Your task to perform on an android device: open the mobile data screen to see how much data has been used Image 0: 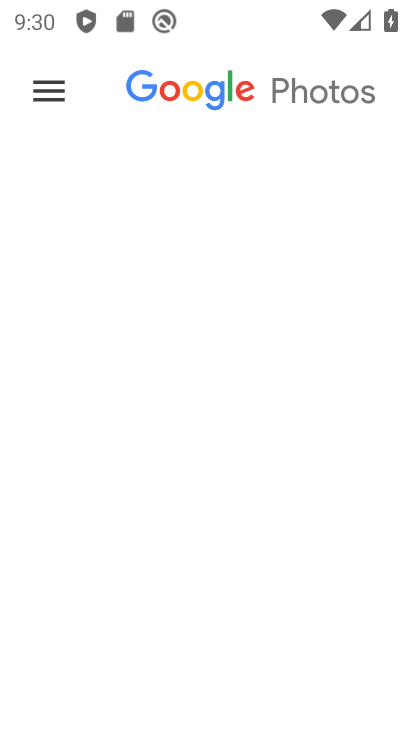
Step 0: drag from (272, 691) to (167, 103)
Your task to perform on an android device: open the mobile data screen to see how much data has been used Image 1: 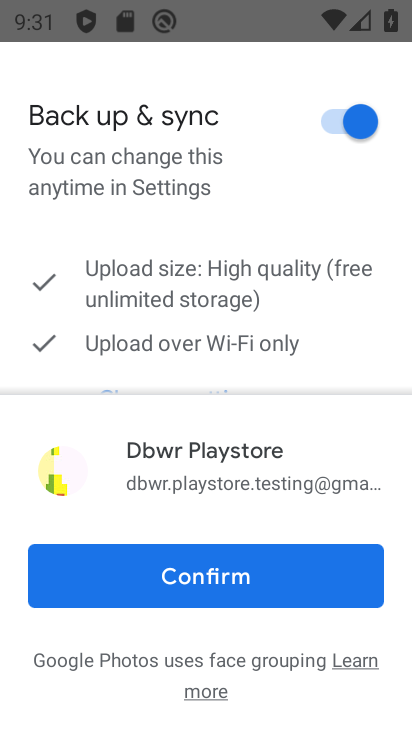
Step 1: press back button
Your task to perform on an android device: open the mobile data screen to see how much data has been used Image 2: 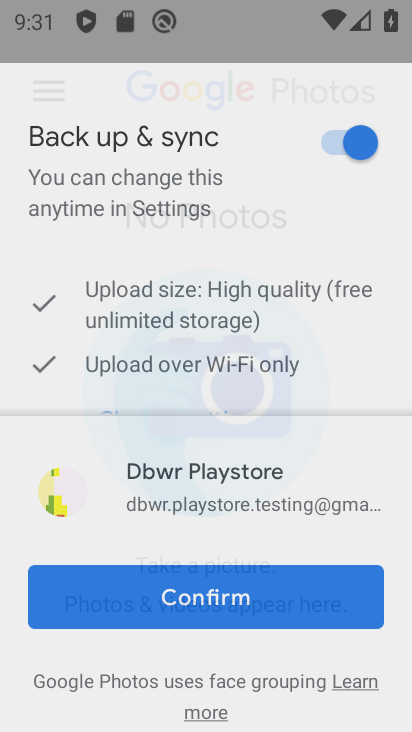
Step 2: press back button
Your task to perform on an android device: open the mobile data screen to see how much data has been used Image 3: 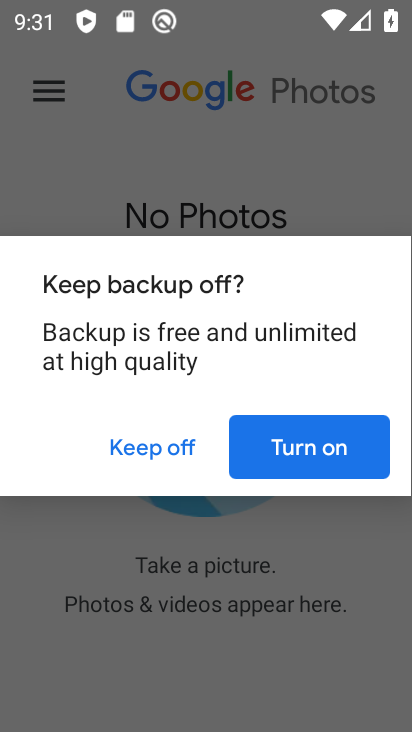
Step 3: press back button
Your task to perform on an android device: open the mobile data screen to see how much data has been used Image 4: 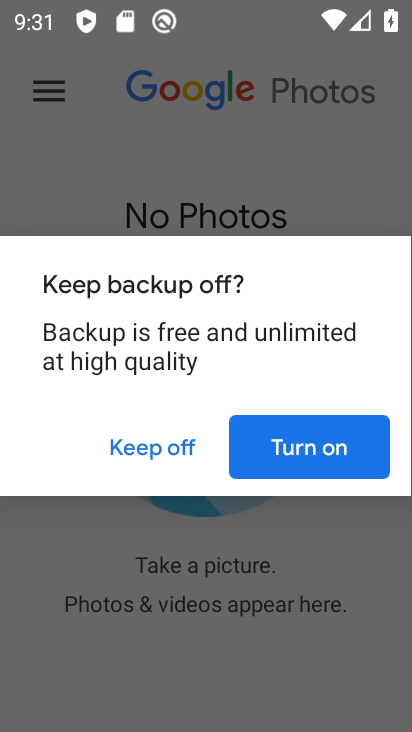
Step 4: click (153, 429)
Your task to perform on an android device: open the mobile data screen to see how much data has been used Image 5: 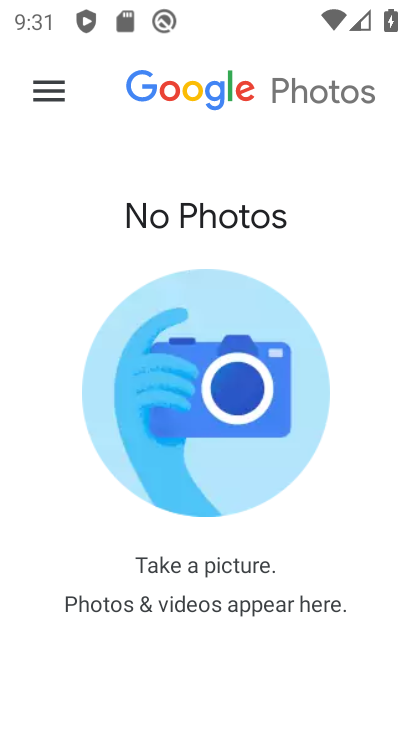
Step 5: drag from (69, 309) to (68, 3)
Your task to perform on an android device: open the mobile data screen to see how much data has been used Image 6: 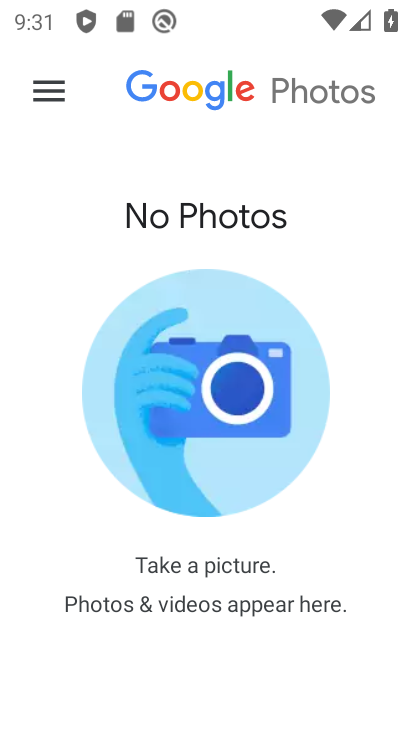
Step 6: drag from (110, 467) to (70, 89)
Your task to perform on an android device: open the mobile data screen to see how much data has been used Image 7: 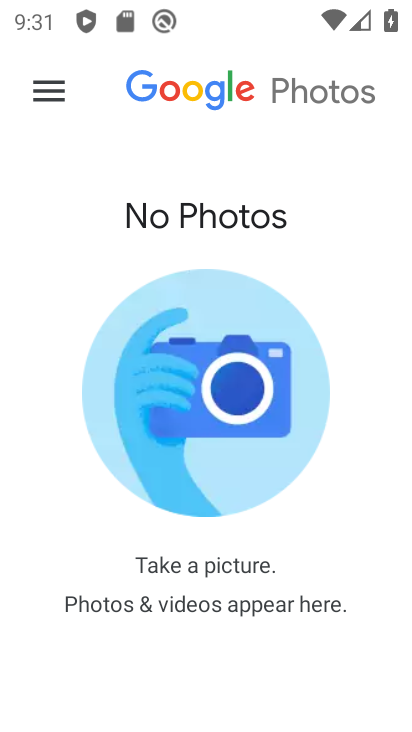
Step 7: drag from (106, 415) to (89, 85)
Your task to perform on an android device: open the mobile data screen to see how much data has been used Image 8: 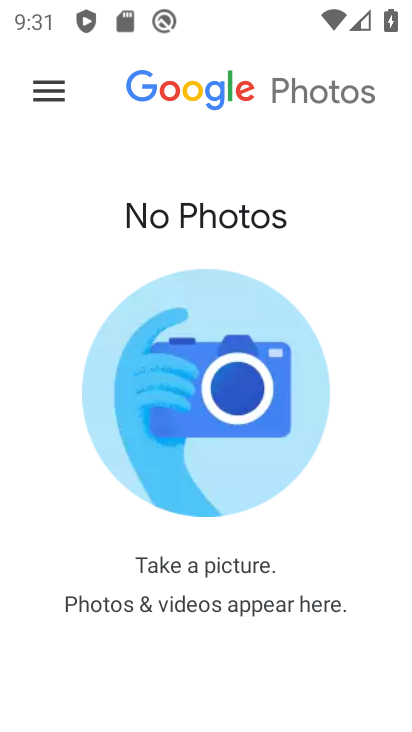
Step 8: drag from (111, 542) to (66, 57)
Your task to perform on an android device: open the mobile data screen to see how much data has been used Image 9: 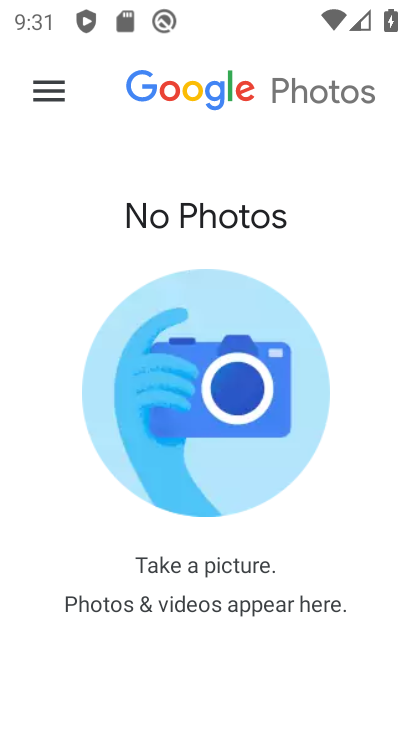
Step 9: drag from (103, 427) to (35, 35)
Your task to perform on an android device: open the mobile data screen to see how much data has been used Image 10: 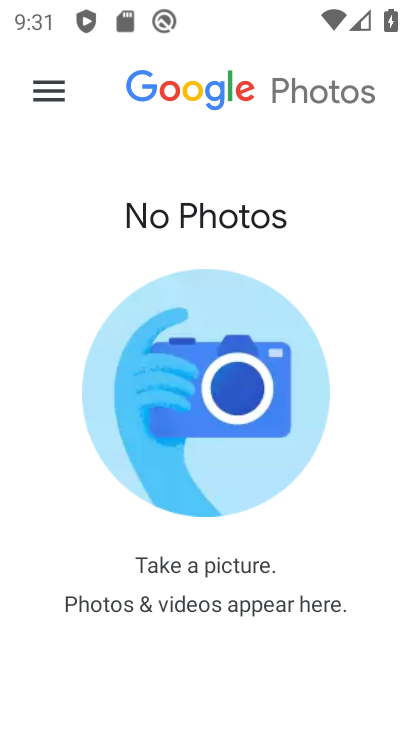
Step 10: drag from (112, 470) to (85, 69)
Your task to perform on an android device: open the mobile data screen to see how much data has been used Image 11: 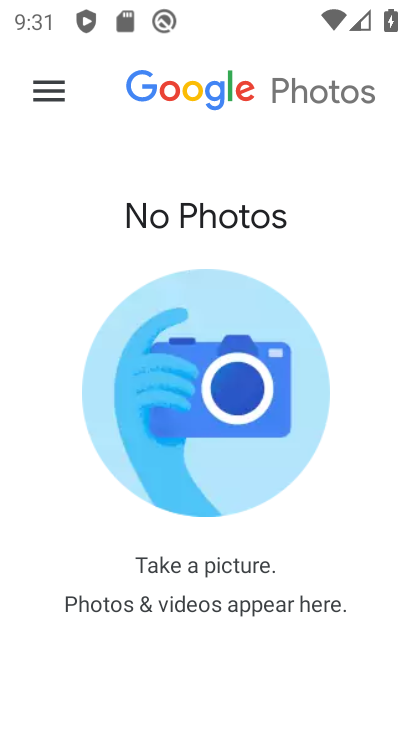
Step 11: drag from (34, 421) to (34, 0)
Your task to perform on an android device: open the mobile data screen to see how much data has been used Image 12: 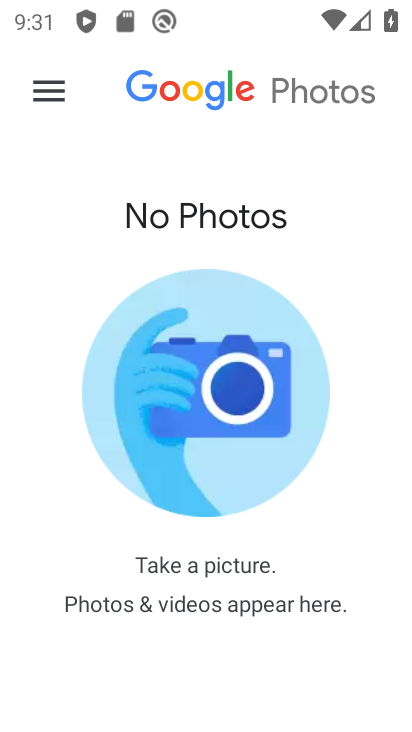
Step 12: press back button
Your task to perform on an android device: open the mobile data screen to see how much data has been used Image 13: 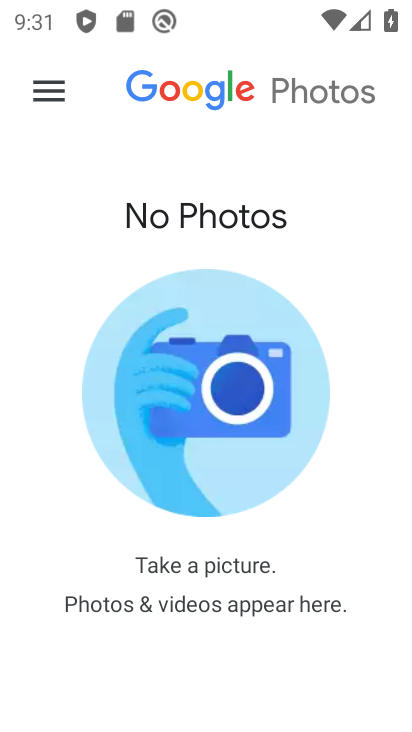
Step 13: press back button
Your task to perform on an android device: open the mobile data screen to see how much data has been used Image 14: 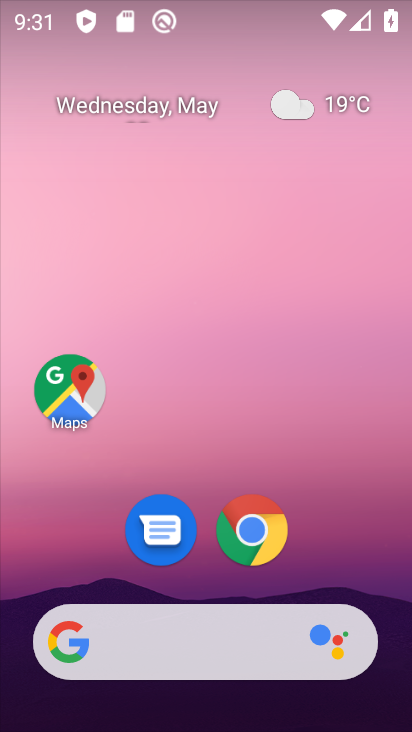
Step 14: drag from (274, 661) to (230, 5)
Your task to perform on an android device: open the mobile data screen to see how much data has been used Image 15: 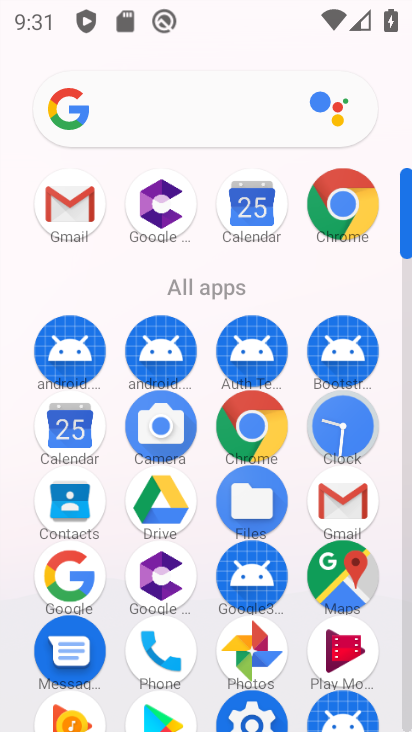
Step 15: drag from (204, 566) to (204, 241)
Your task to perform on an android device: open the mobile data screen to see how much data has been used Image 16: 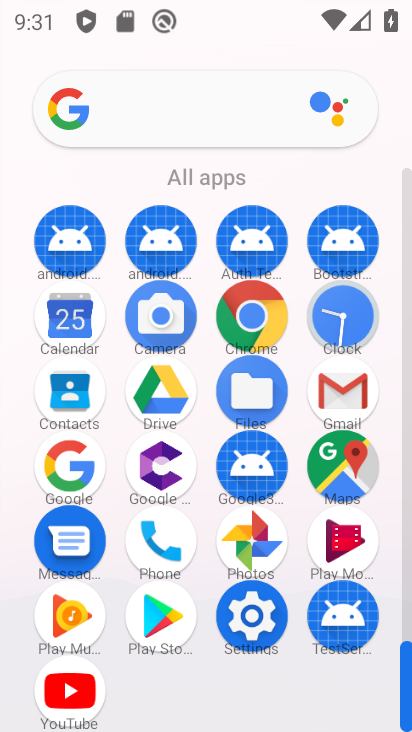
Step 16: drag from (186, 576) to (194, 145)
Your task to perform on an android device: open the mobile data screen to see how much data has been used Image 17: 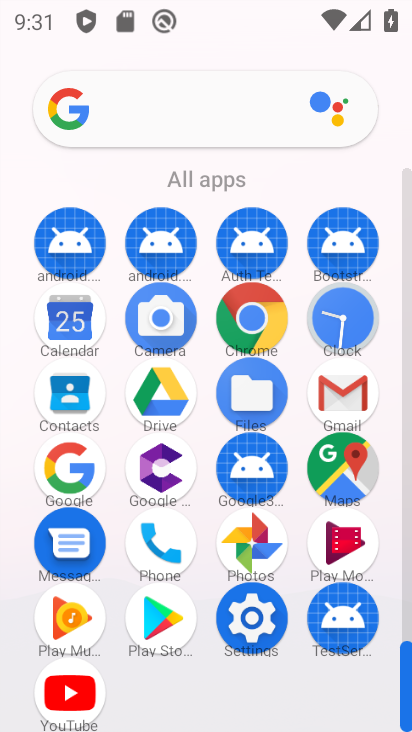
Step 17: click (261, 610)
Your task to perform on an android device: open the mobile data screen to see how much data has been used Image 18: 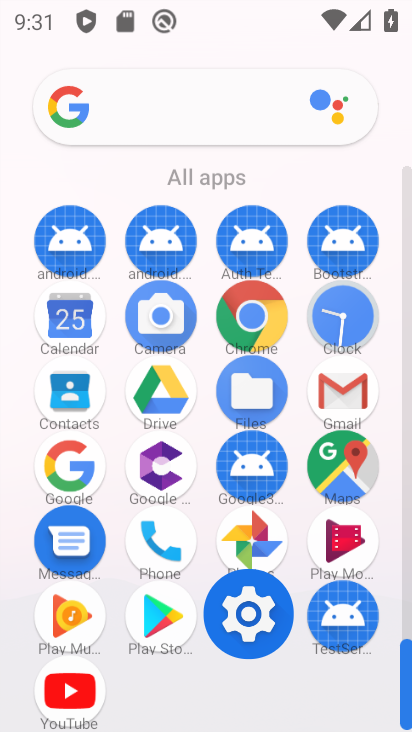
Step 18: click (260, 609)
Your task to perform on an android device: open the mobile data screen to see how much data has been used Image 19: 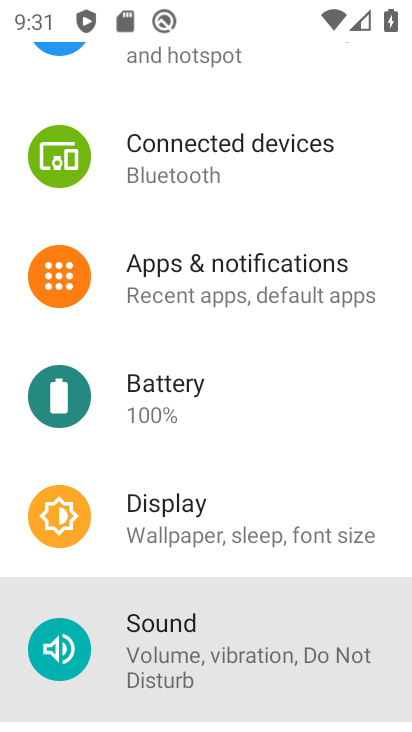
Step 19: click (260, 609)
Your task to perform on an android device: open the mobile data screen to see how much data has been used Image 20: 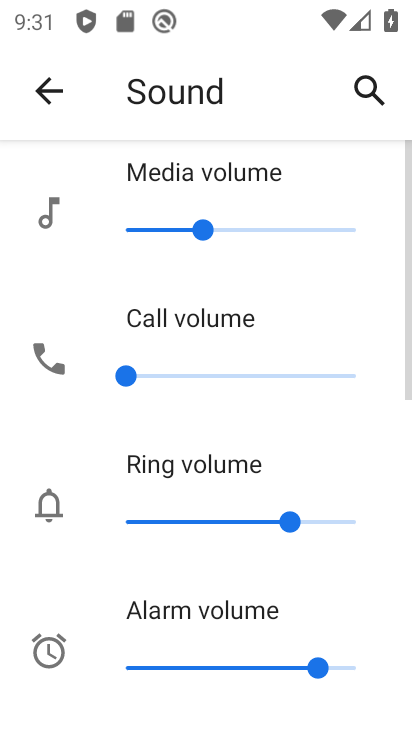
Step 20: click (36, 87)
Your task to perform on an android device: open the mobile data screen to see how much data has been used Image 21: 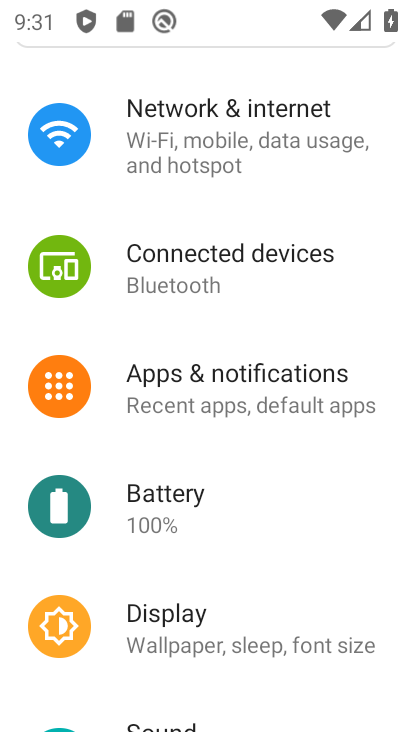
Step 21: click (206, 140)
Your task to perform on an android device: open the mobile data screen to see how much data has been used Image 22: 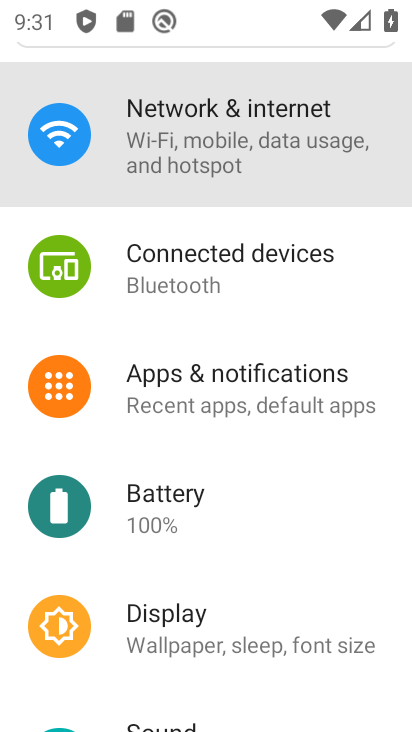
Step 22: click (206, 140)
Your task to perform on an android device: open the mobile data screen to see how much data has been used Image 23: 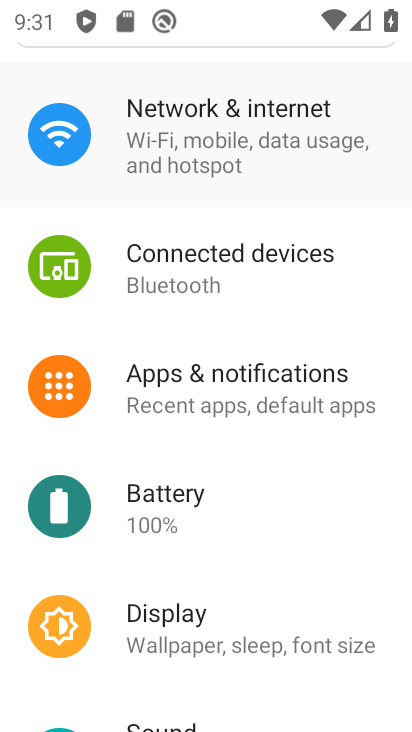
Step 23: click (206, 140)
Your task to perform on an android device: open the mobile data screen to see how much data has been used Image 24: 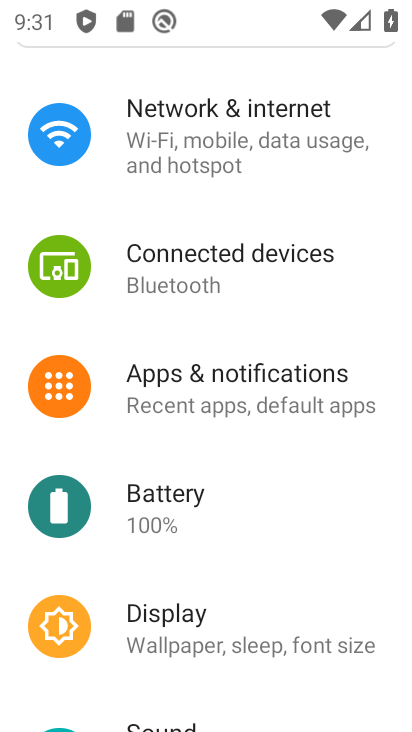
Step 24: click (208, 141)
Your task to perform on an android device: open the mobile data screen to see how much data has been used Image 25: 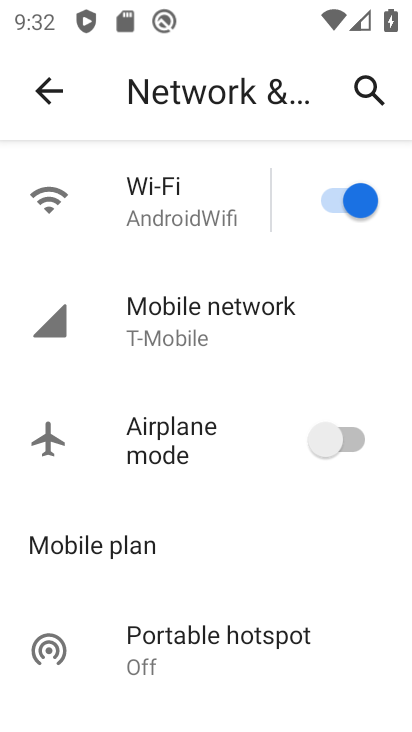
Step 25: click (155, 331)
Your task to perform on an android device: open the mobile data screen to see how much data has been used Image 26: 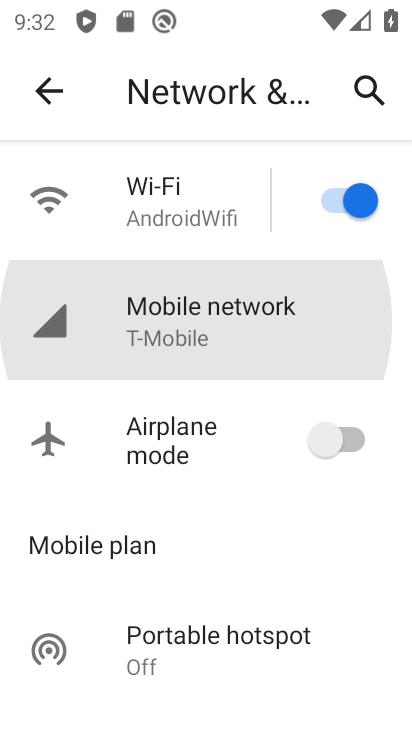
Step 26: click (158, 333)
Your task to perform on an android device: open the mobile data screen to see how much data has been used Image 27: 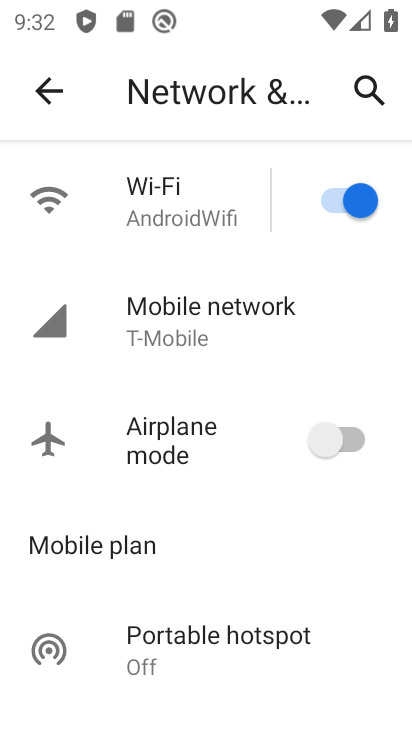
Step 27: click (162, 336)
Your task to perform on an android device: open the mobile data screen to see how much data has been used Image 28: 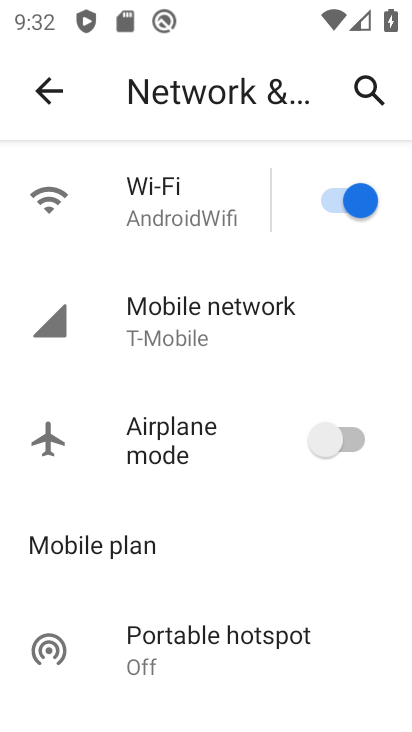
Step 28: click (166, 336)
Your task to perform on an android device: open the mobile data screen to see how much data has been used Image 29: 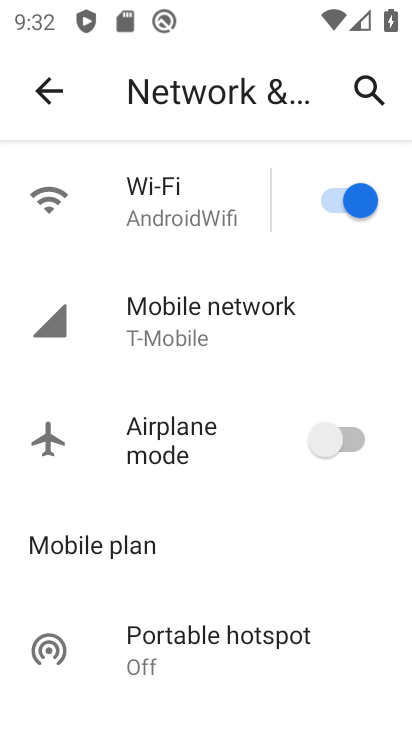
Step 29: click (167, 336)
Your task to perform on an android device: open the mobile data screen to see how much data has been used Image 30: 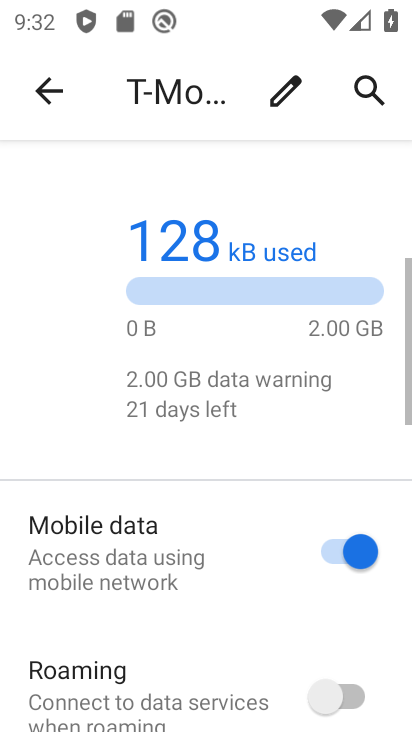
Step 30: task complete